Your task to perform on an android device: turn off picture-in-picture Image 0: 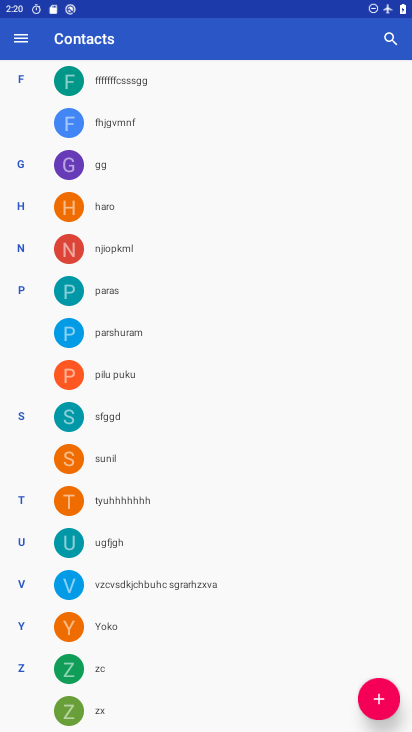
Step 0: press home button
Your task to perform on an android device: turn off picture-in-picture Image 1: 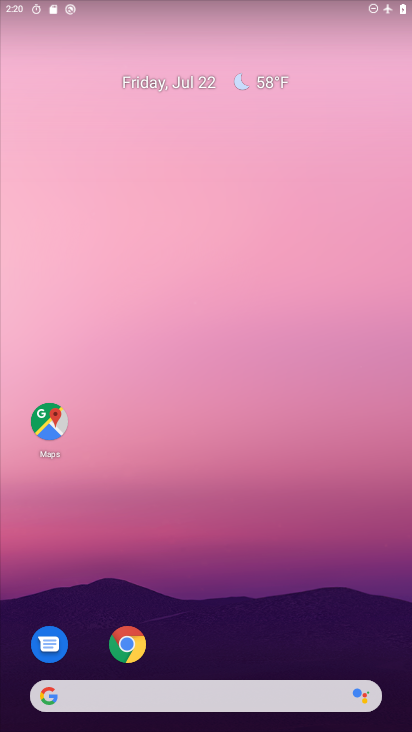
Step 1: click (135, 649)
Your task to perform on an android device: turn off picture-in-picture Image 2: 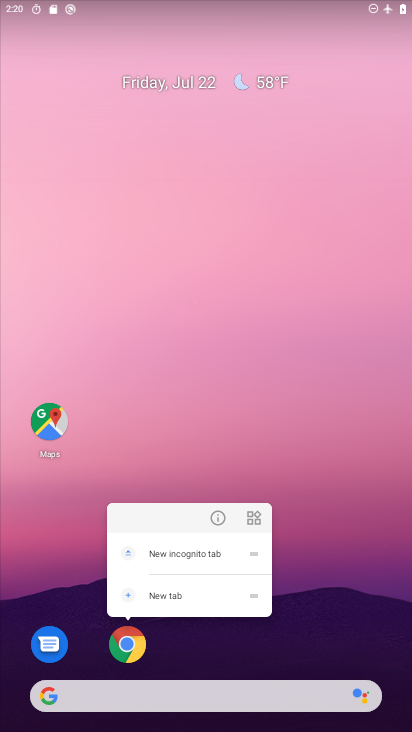
Step 2: click (212, 518)
Your task to perform on an android device: turn off picture-in-picture Image 3: 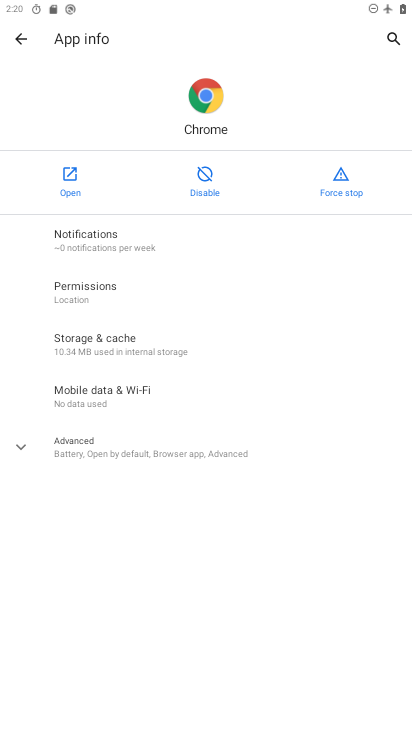
Step 3: click (124, 440)
Your task to perform on an android device: turn off picture-in-picture Image 4: 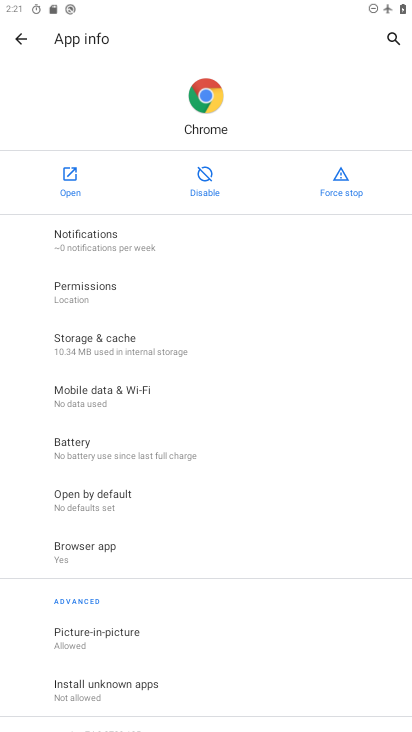
Step 4: click (163, 639)
Your task to perform on an android device: turn off picture-in-picture Image 5: 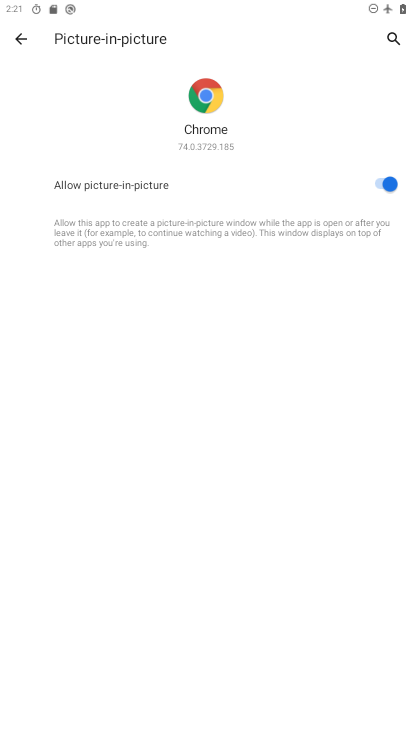
Step 5: click (392, 182)
Your task to perform on an android device: turn off picture-in-picture Image 6: 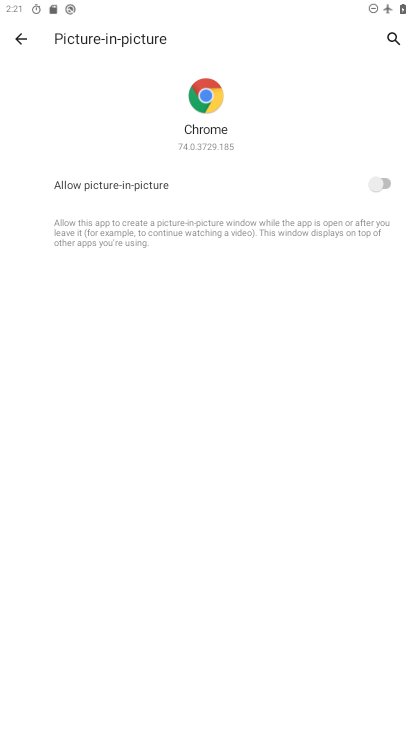
Step 6: task complete